Your task to perform on an android device: Open CNN.com Image 0: 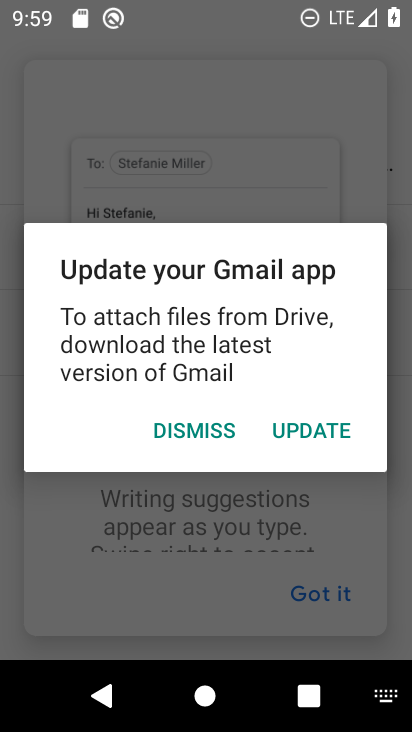
Step 0: click (321, 584)
Your task to perform on an android device: Open CNN.com Image 1: 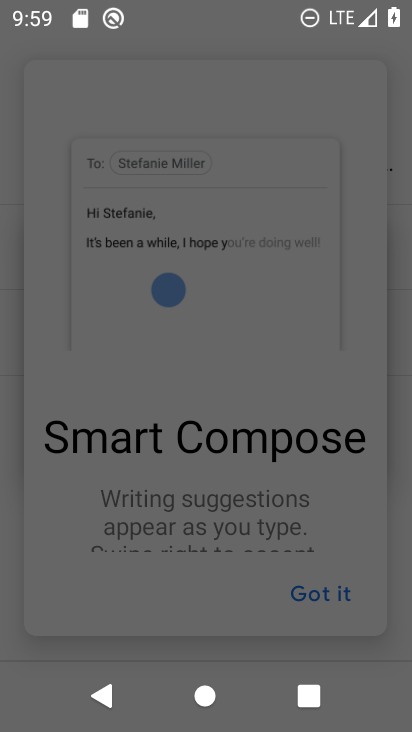
Step 1: press home button
Your task to perform on an android device: Open CNN.com Image 2: 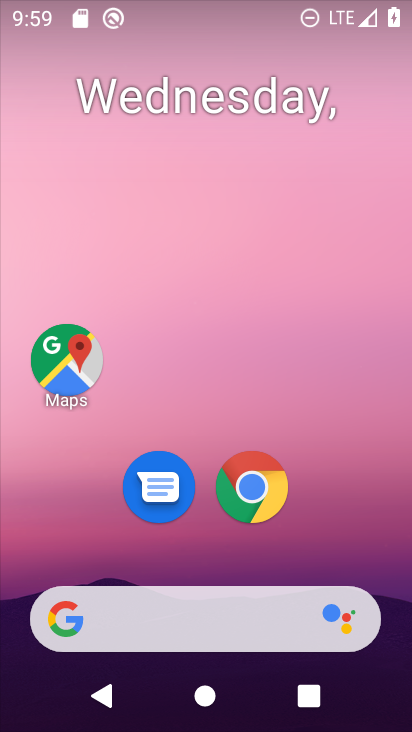
Step 2: drag from (363, 464) to (246, 7)
Your task to perform on an android device: Open CNN.com Image 3: 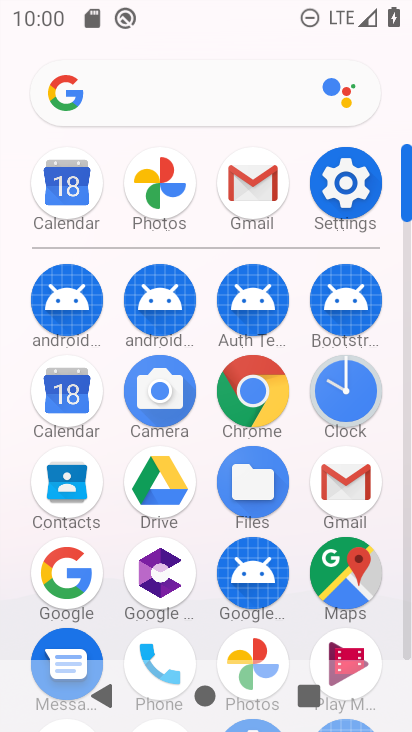
Step 3: click (133, 81)
Your task to perform on an android device: Open CNN.com Image 4: 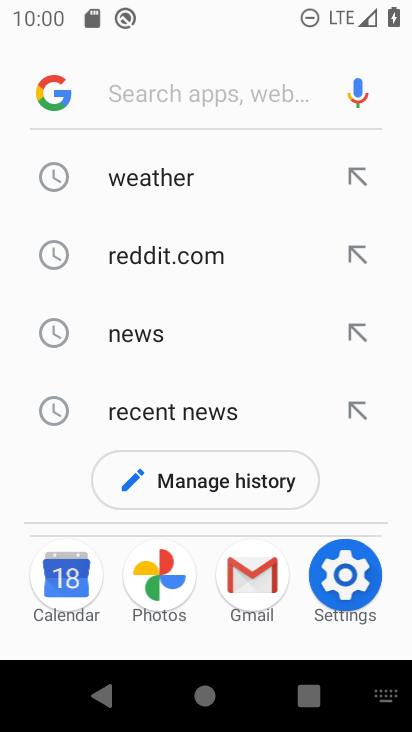
Step 4: type "cnn.com"
Your task to perform on an android device: Open CNN.com Image 5: 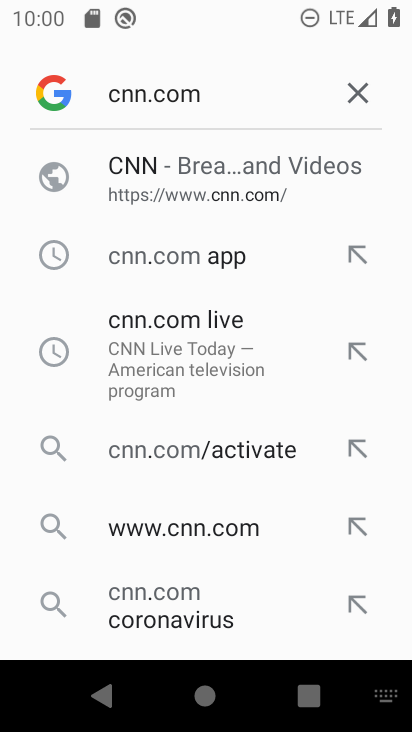
Step 5: click (195, 171)
Your task to perform on an android device: Open CNN.com Image 6: 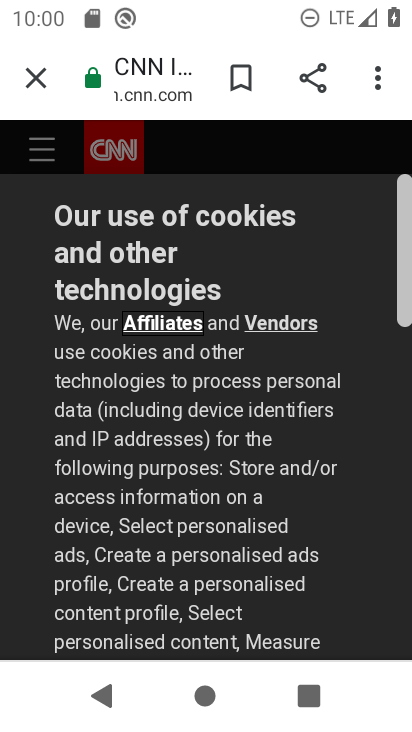
Step 6: task complete